Your task to perform on an android device: open sync settings in chrome Image 0: 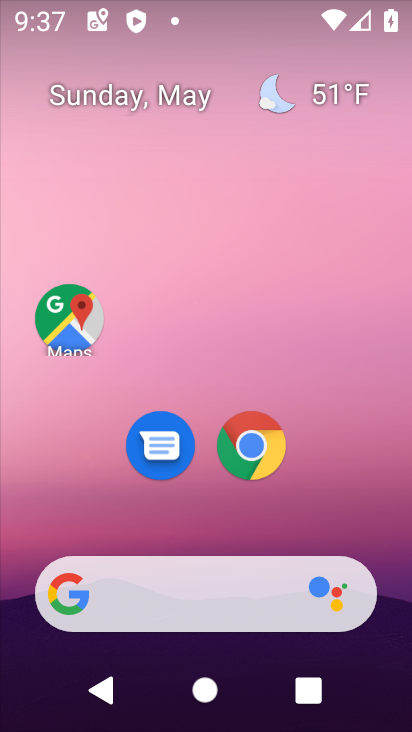
Step 0: click (249, 439)
Your task to perform on an android device: open sync settings in chrome Image 1: 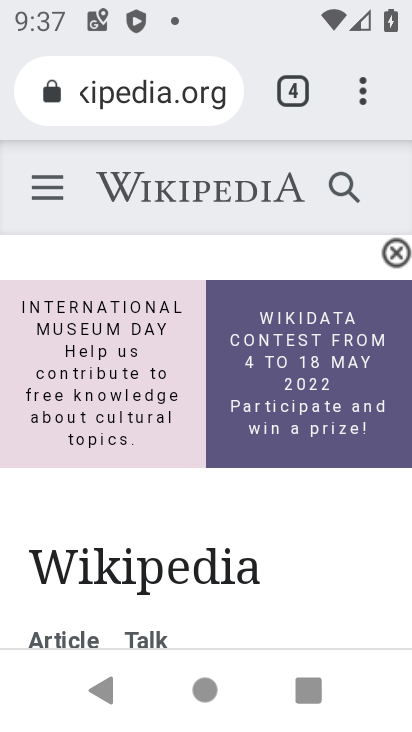
Step 1: click (360, 91)
Your task to perform on an android device: open sync settings in chrome Image 2: 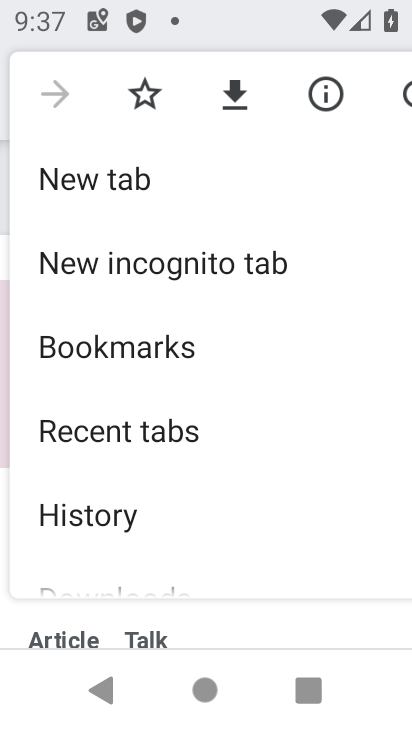
Step 2: drag from (224, 449) to (162, 109)
Your task to perform on an android device: open sync settings in chrome Image 3: 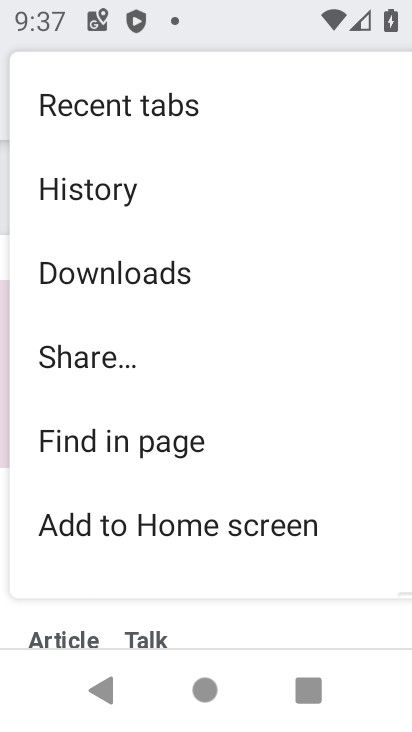
Step 3: drag from (162, 490) to (26, 54)
Your task to perform on an android device: open sync settings in chrome Image 4: 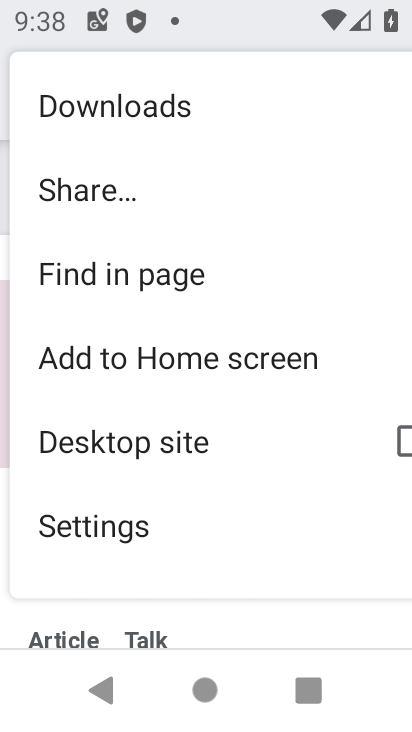
Step 4: click (114, 526)
Your task to perform on an android device: open sync settings in chrome Image 5: 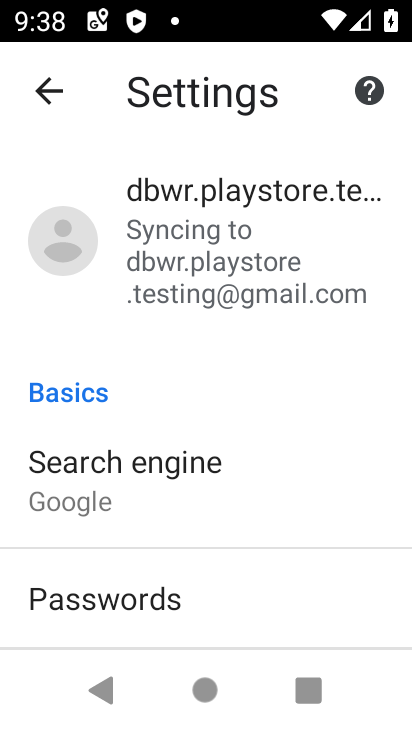
Step 5: click (184, 186)
Your task to perform on an android device: open sync settings in chrome Image 6: 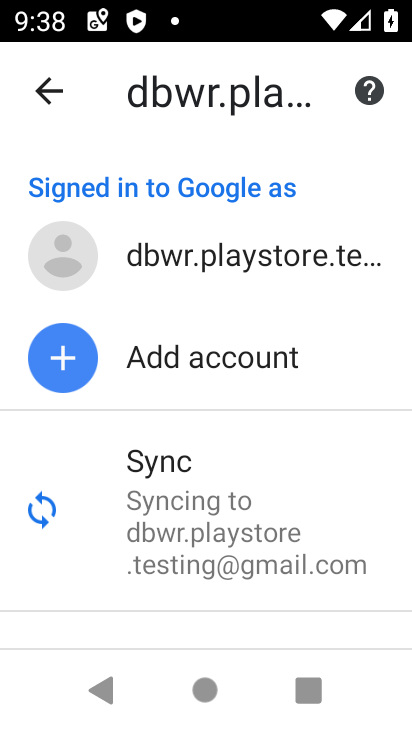
Step 6: click (155, 481)
Your task to perform on an android device: open sync settings in chrome Image 7: 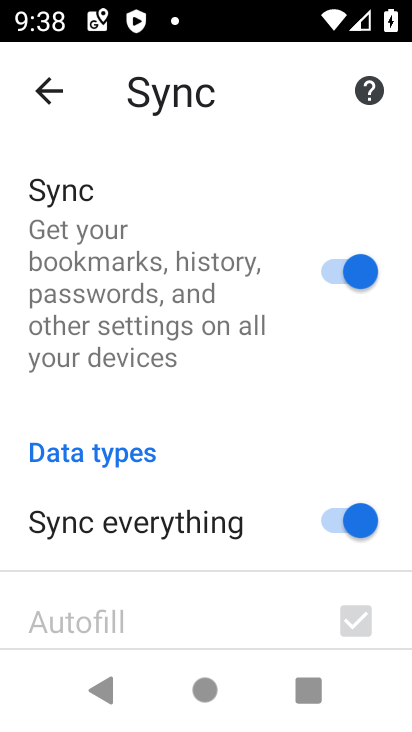
Step 7: task complete